Your task to perform on an android device: Open privacy settings Image 0: 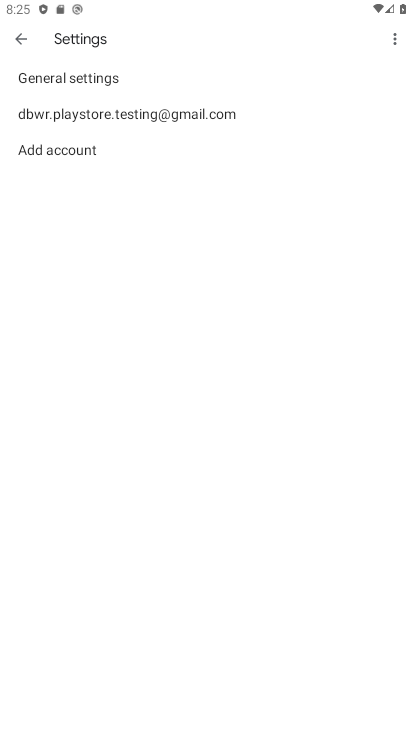
Step 0: press home button
Your task to perform on an android device: Open privacy settings Image 1: 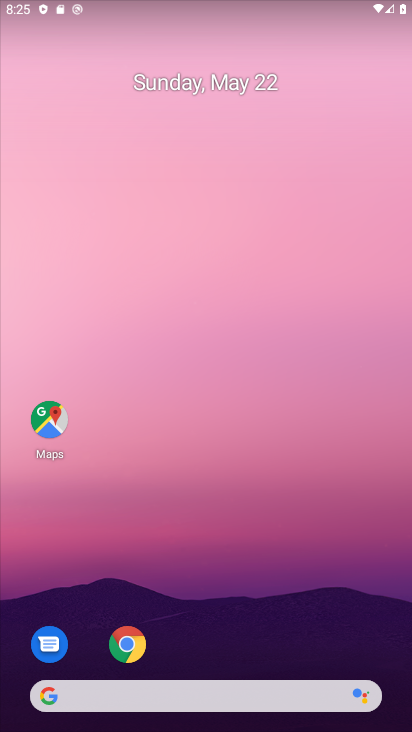
Step 1: drag from (217, 679) to (267, 397)
Your task to perform on an android device: Open privacy settings Image 2: 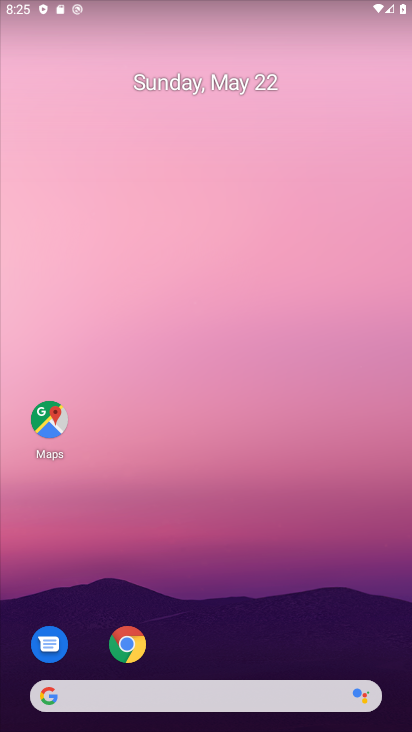
Step 2: drag from (201, 672) to (155, 355)
Your task to perform on an android device: Open privacy settings Image 3: 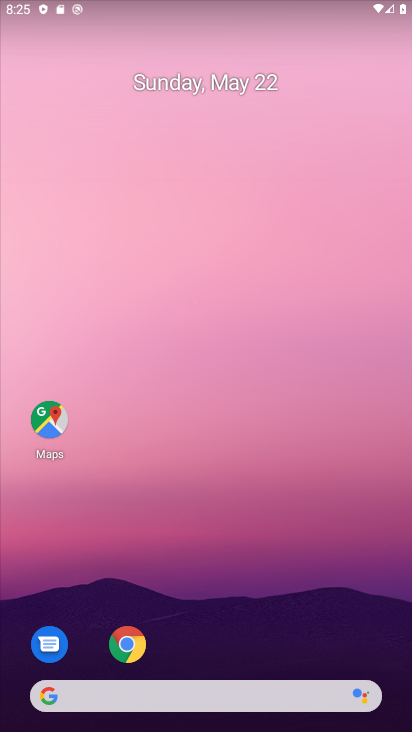
Step 3: drag from (197, 690) to (173, 524)
Your task to perform on an android device: Open privacy settings Image 4: 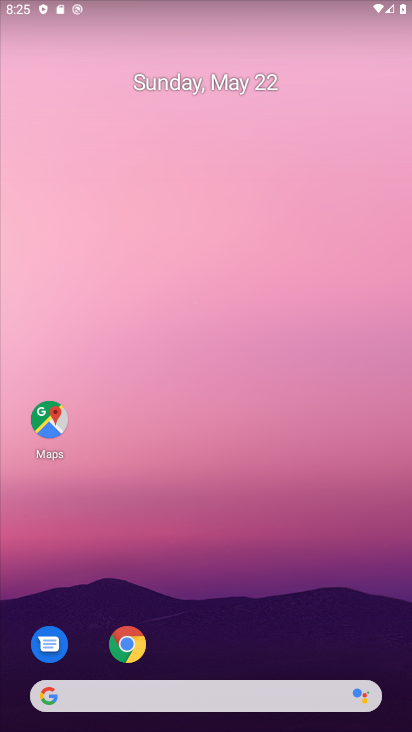
Step 4: drag from (243, 694) to (168, 251)
Your task to perform on an android device: Open privacy settings Image 5: 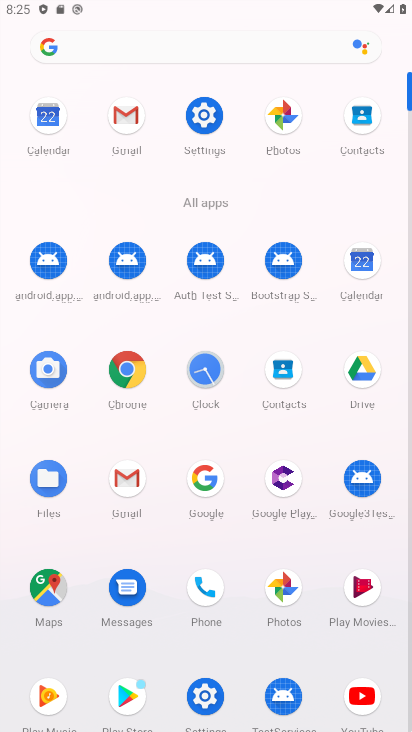
Step 5: click (208, 119)
Your task to perform on an android device: Open privacy settings Image 6: 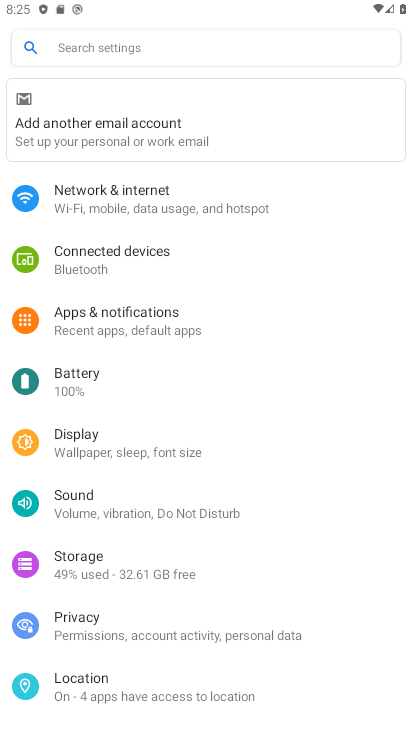
Step 6: click (130, 617)
Your task to perform on an android device: Open privacy settings Image 7: 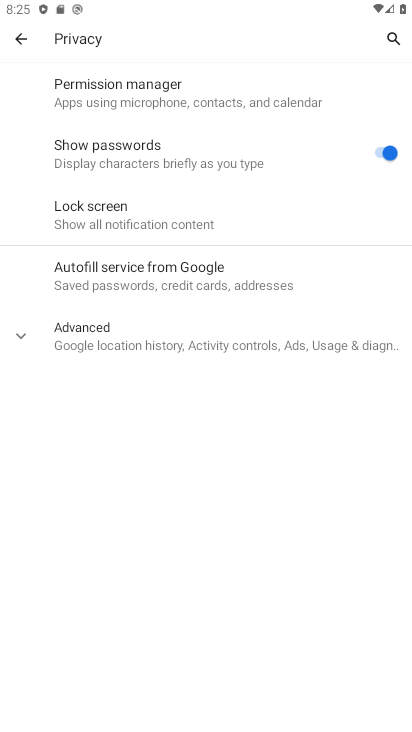
Step 7: task complete